Your task to perform on an android device: Search for sushi restaurants on Maps Image 0: 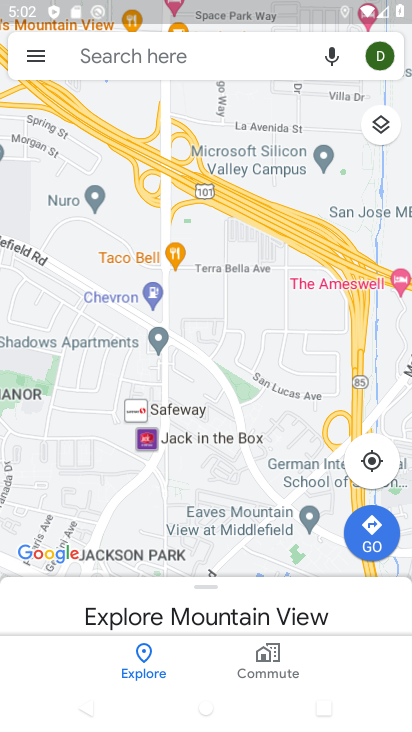
Step 0: press back button
Your task to perform on an android device: Search for sushi restaurants on Maps Image 1: 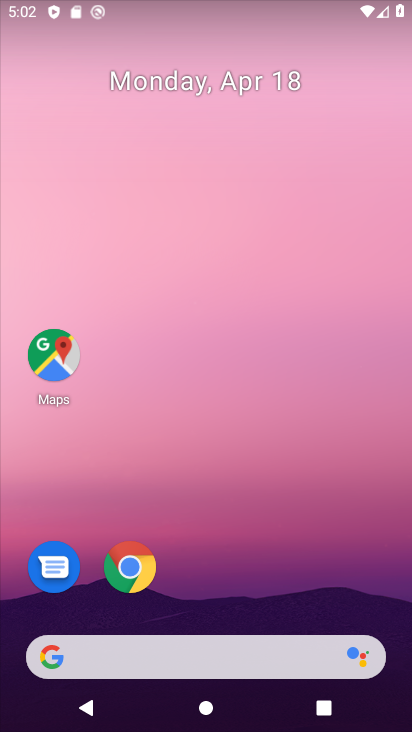
Step 1: click (51, 354)
Your task to perform on an android device: Search for sushi restaurants on Maps Image 2: 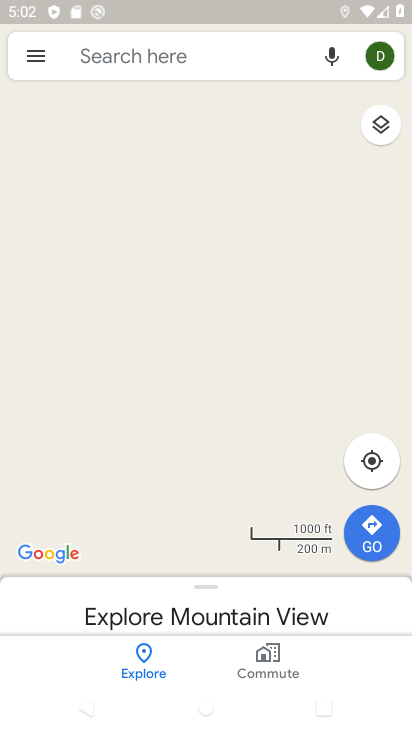
Step 2: click (234, 55)
Your task to perform on an android device: Search for sushi restaurants on Maps Image 3: 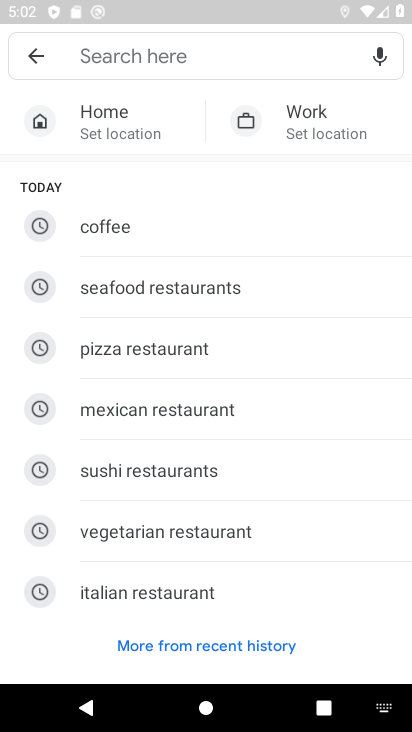
Step 3: click (191, 479)
Your task to perform on an android device: Search for sushi restaurants on Maps Image 4: 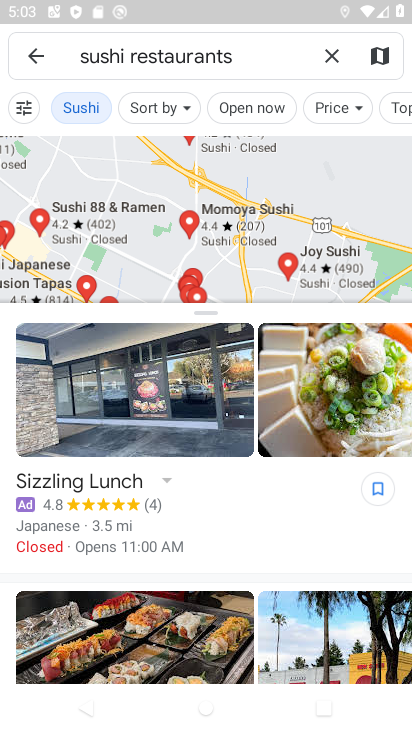
Step 4: task complete